Your task to perform on an android device: make emails show in primary in the gmail app Image 0: 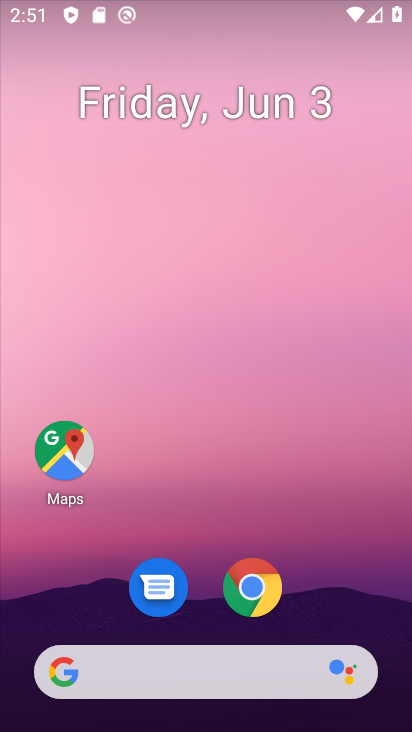
Step 0: drag from (217, 720) to (218, 196)
Your task to perform on an android device: make emails show in primary in the gmail app Image 1: 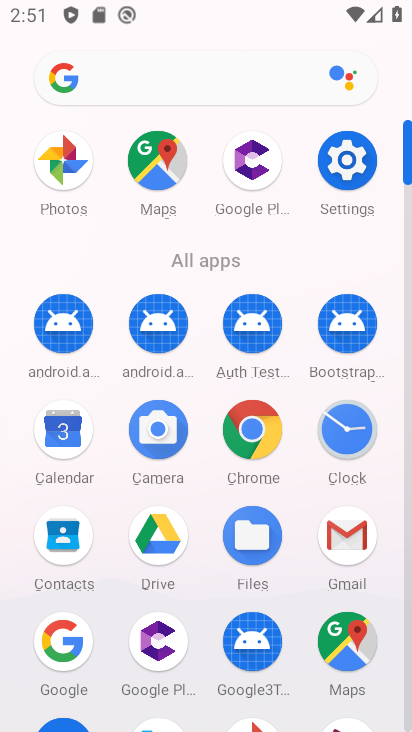
Step 1: click (349, 527)
Your task to perform on an android device: make emails show in primary in the gmail app Image 2: 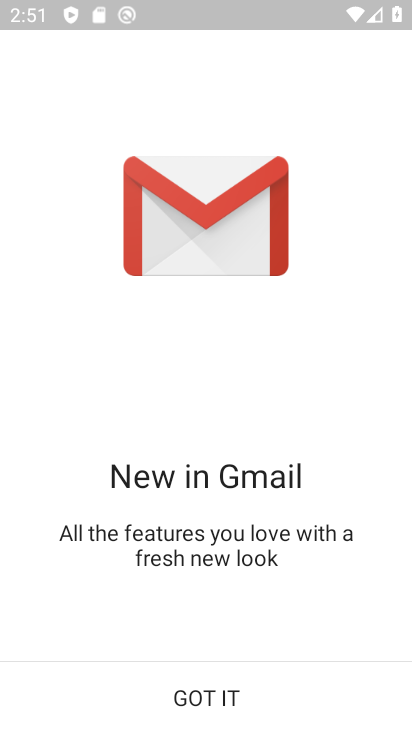
Step 2: click (201, 695)
Your task to perform on an android device: make emails show in primary in the gmail app Image 3: 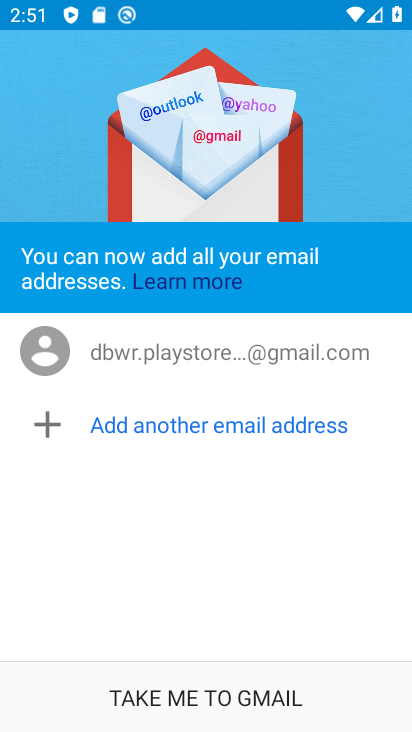
Step 3: click (196, 694)
Your task to perform on an android device: make emails show in primary in the gmail app Image 4: 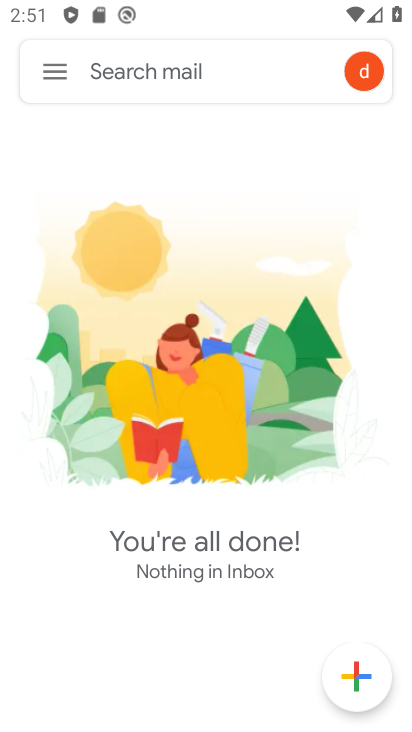
Step 4: click (60, 72)
Your task to perform on an android device: make emails show in primary in the gmail app Image 5: 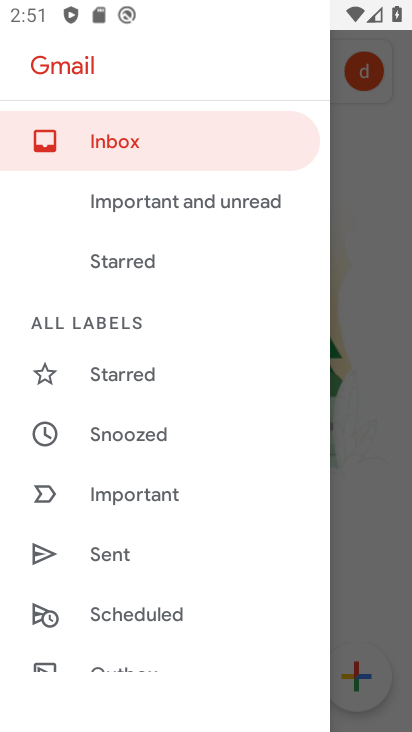
Step 5: drag from (151, 641) to (171, 299)
Your task to perform on an android device: make emails show in primary in the gmail app Image 6: 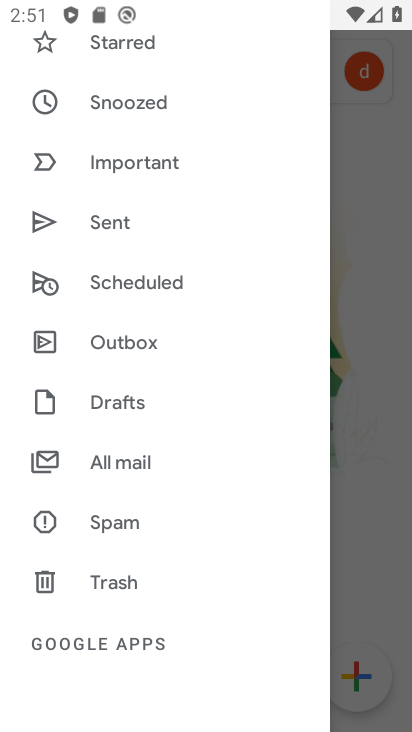
Step 6: drag from (114, 616) to (118, 203)
Your task to perform on an android device: make emails show in primary in the gmail app Image 7: 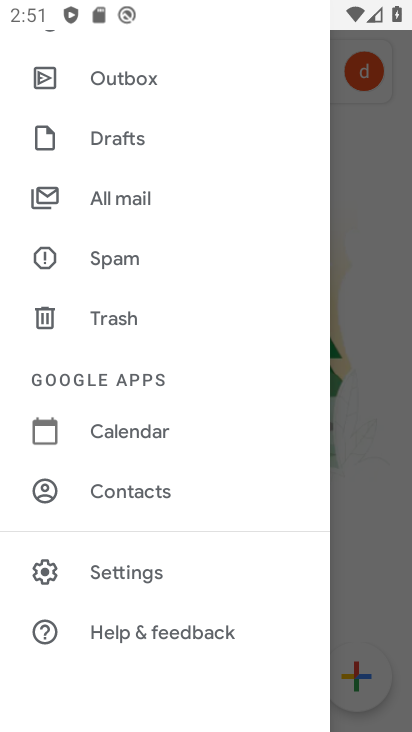
Step 7: click (124, 565)
Your task to perform on an android device: make emails show in primary in the gmail app Image 8: 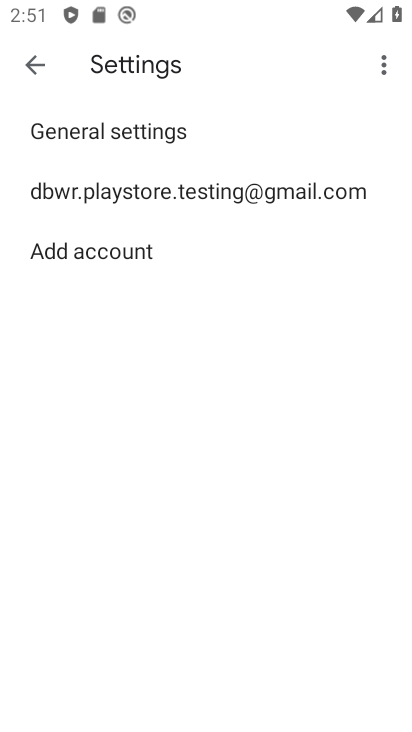
Step 8: click (186, 188)
Your task to perform on an android device: make emails show in primary in the gmail app Image 9: 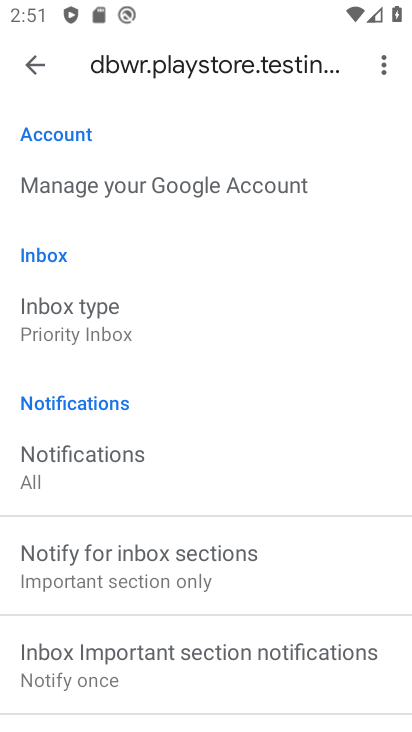
Step 9: click (88, 306)
Your task to perform on an android device: make emails show in primary in the gmail app Image 10: 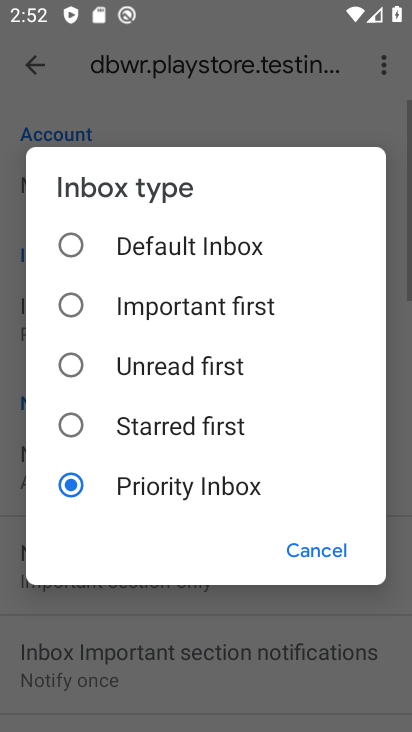
Step 10: click (71, 248)
Your task to perform on an android device: make emails show in primary in the gmail app Image 11: 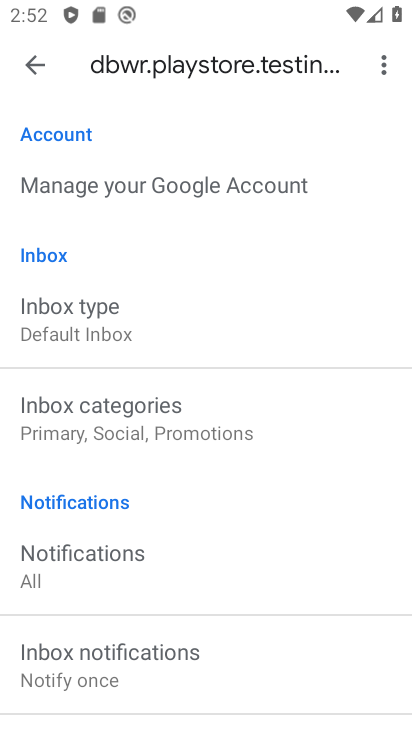
Step 11: click (99, 426)
Your task to perform on an android device: make emails show in primary in the gmail app Image 12: 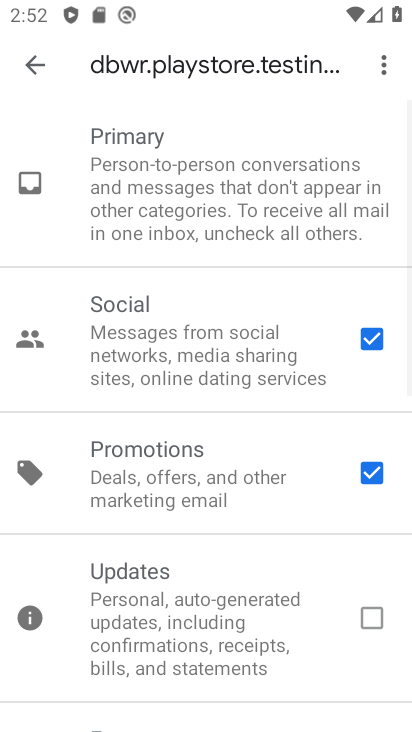
Step 12: click (365, 477)
Your task to perform on an android device: make emails show in primary in the gmail app Image 13: 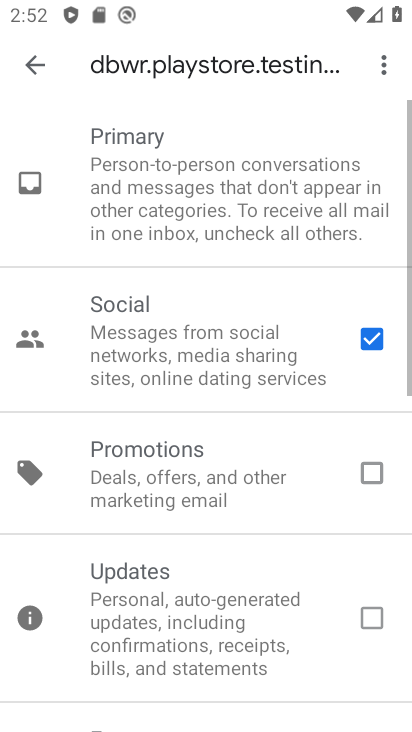
Step 13: click (372, 338)
Your task to perform on an android device: make emails show in primary in the gmail app Image 14: 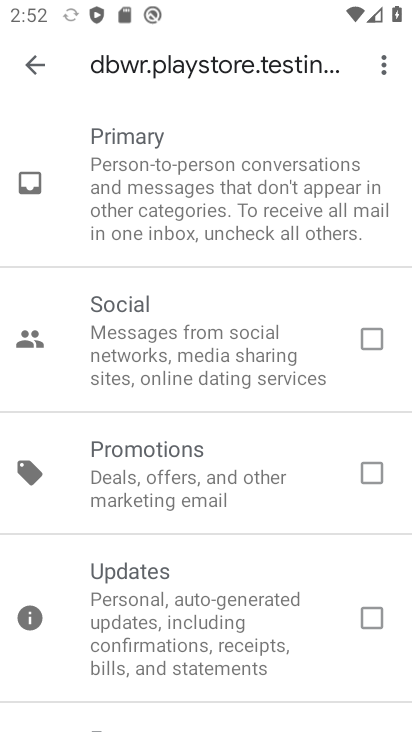
Step 14: click (35, 64)
Your task to perform on an android device: make emails show in primary in the gmail app Image 15: 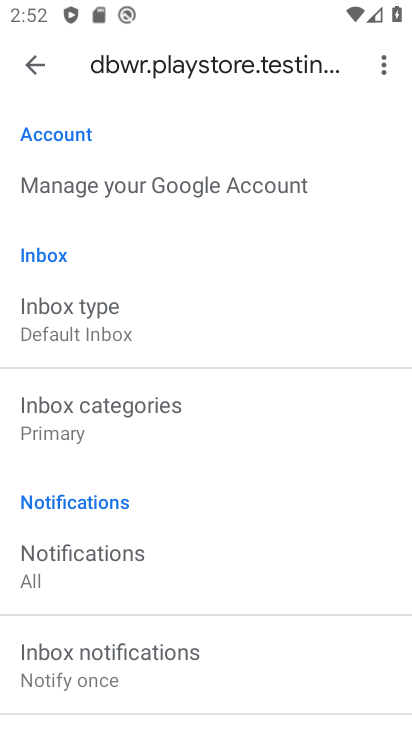
Step 15: task complete